Your task to perform on an android device: set the timer Image 0: 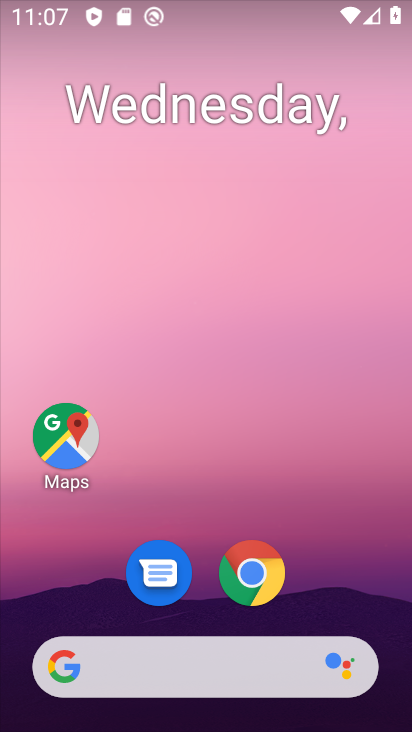
Step 0: drag from (353, 590) to (294, 131)
Your task to perform on an android device: set the timer Image 1: 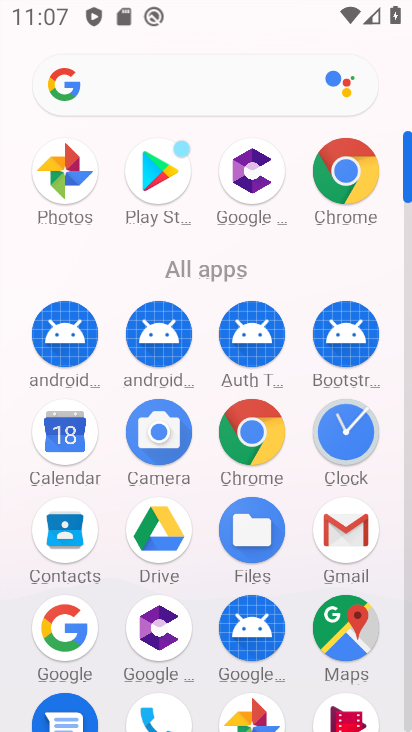
Step 1: click (359, 423)
Your task to perform on an android device: set the timer Image 2: 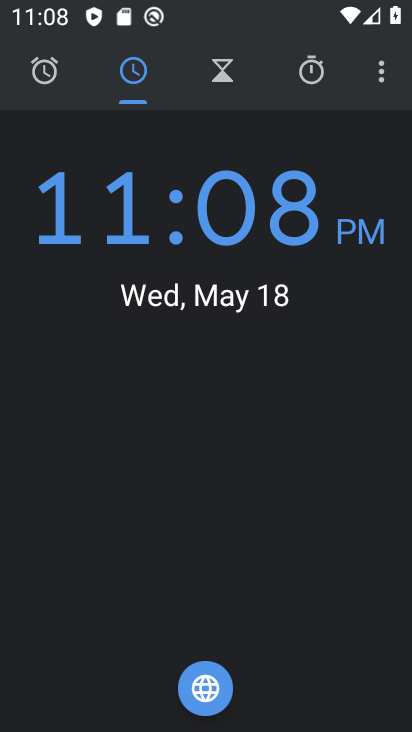
Step 2: click (213, 67)
Your task to perform on an android device: set the timer Image 3: 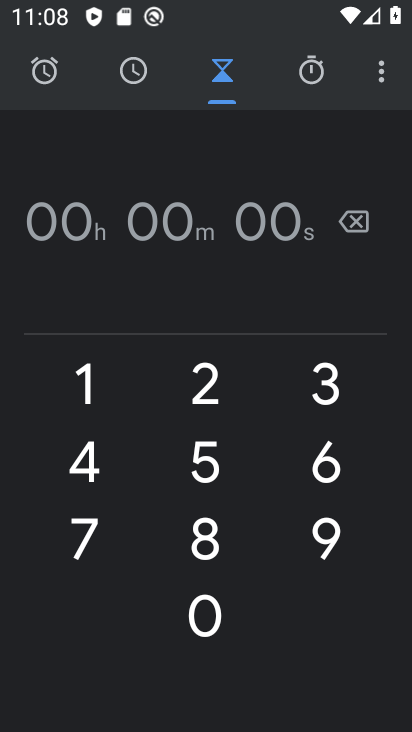
Step 3: type "68776876"
Your task to perform on an android device: set the timer Image 4: 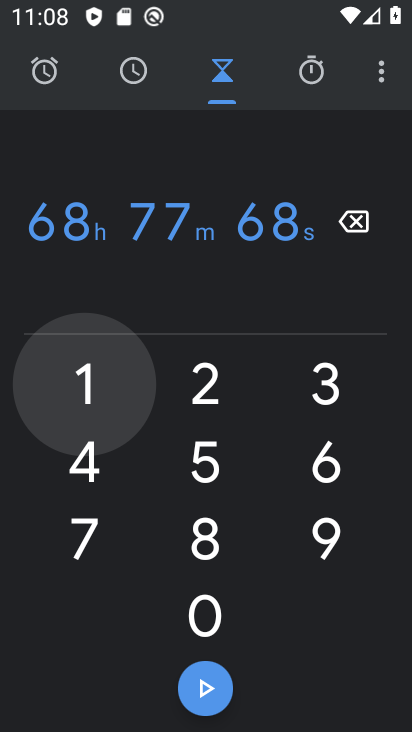
Step 4: click (215, 696)
Your task to perform on an android device: set the timer Image 5: 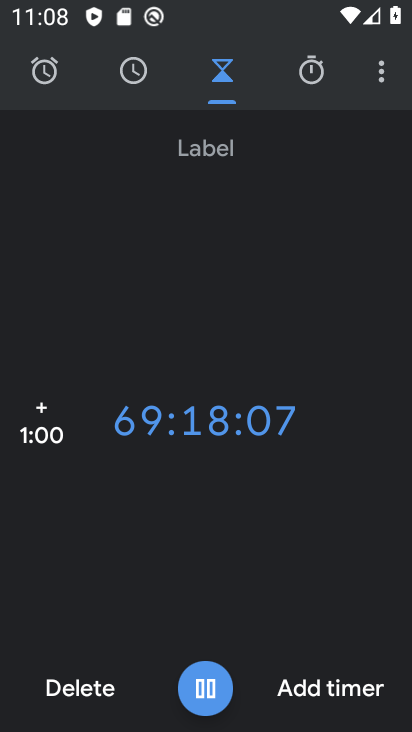
Step 5: task complete